Your task to perform on an android device: Go to Google Image 0: 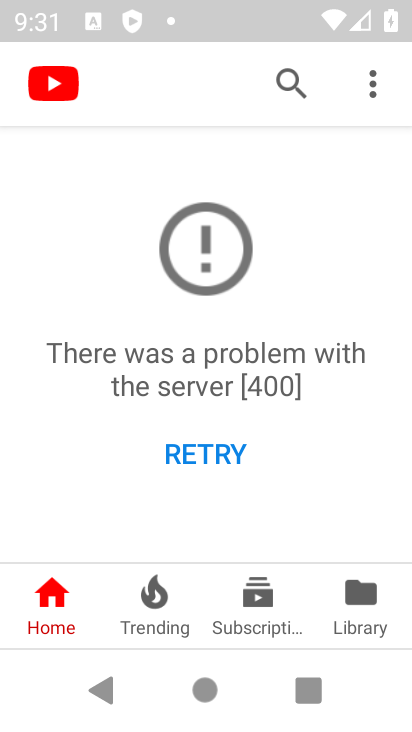
Step 0: press home button
Your task to perform on an android device: Go to Google Image 1: 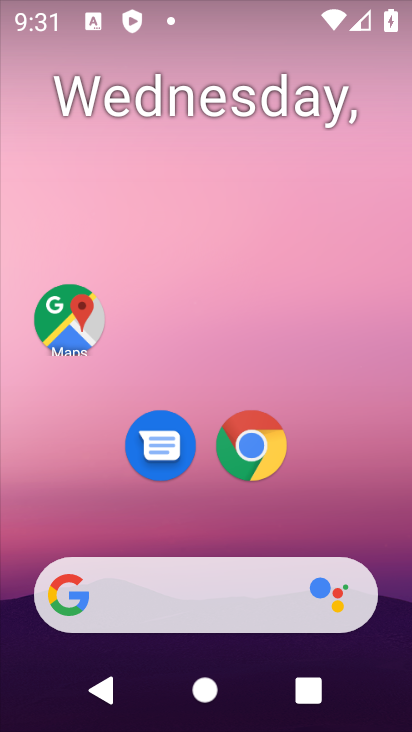
Step 1: drag from (394, 533) to (406, 17)
Your task to perform on an android device: Go to Google Image 2: 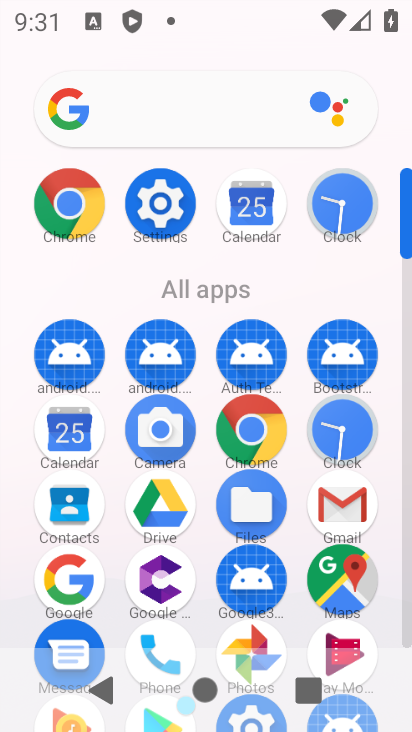
Step 2: click (73, 577)
Your task to perform on an android device: Go to Google Image 3: 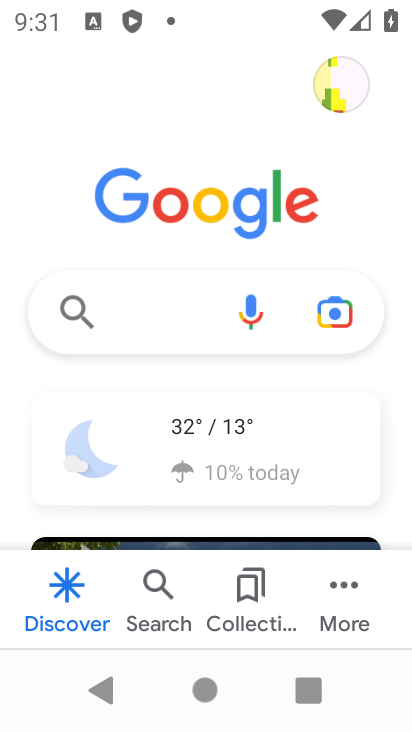
Step 3: task complete